Your task to perform on an android device: Go to Yahoo.com Image 0: 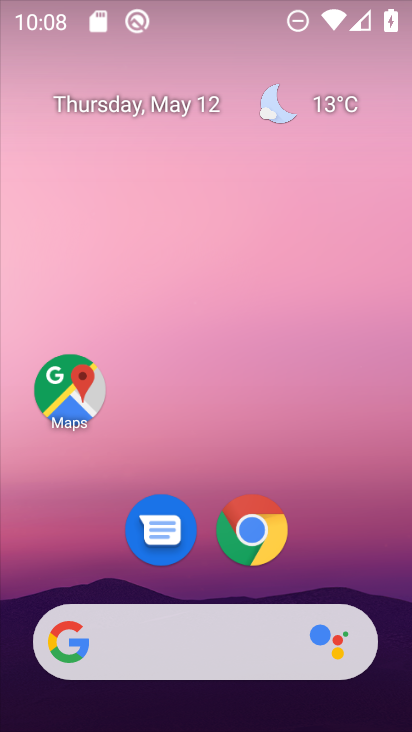
Step 0: click (279, 541)
Your task to perform on an android device: Go to Yahoo.com Image 1: 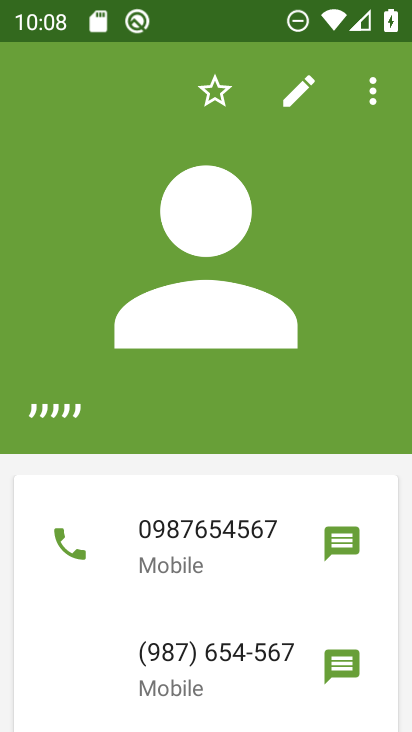
Step 1: press home button
Your task to perform on an android device: Go to Yahoo.com Image 2: 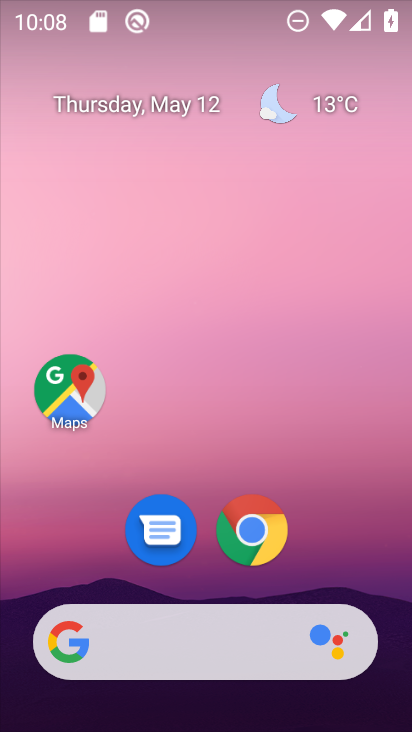
Step 2: click (220, 547)
Your task to perform on an android device: Go to Yahoo.com Image 3: 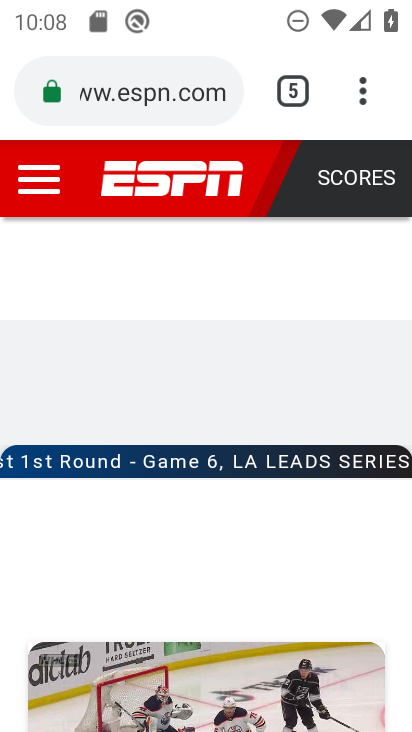
Step 3: click (287, 94)
Your task to perform on an android device: Go to Yahoo.com Image 4: 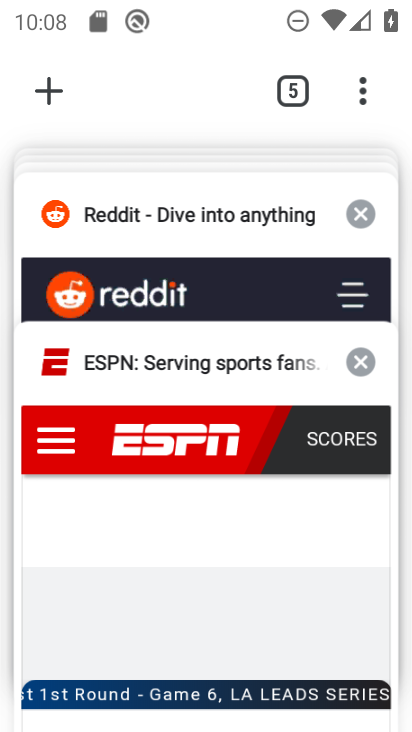
Step 4: click (45, 75)
Your task to perform on an android device: Go to Yahoo.com Image 5: 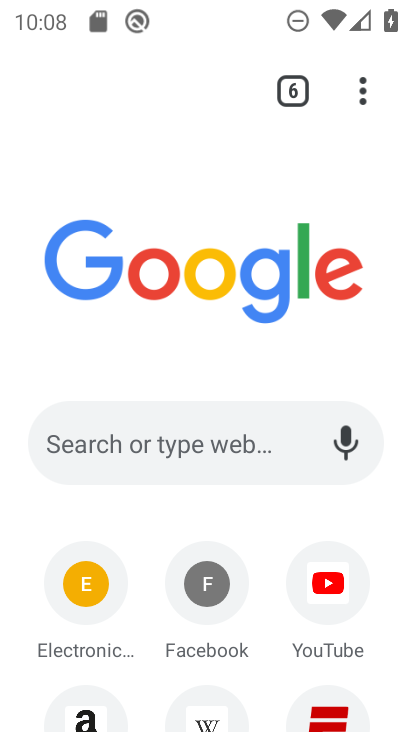
Step 5: drag from (251, 637) to (327, 195)
Your task to perform on an android device: Go to Yahoo.com Image 6: 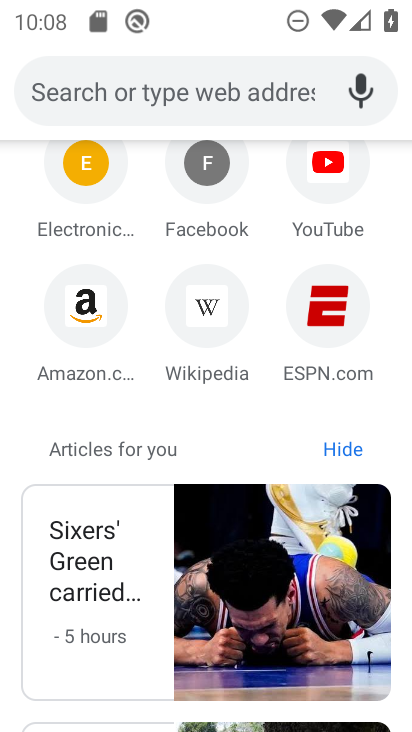
Step 6: drag from (276, 224) to (178, 567)
Your task to perform on an android device: Go to Yahoo.com Image 7: 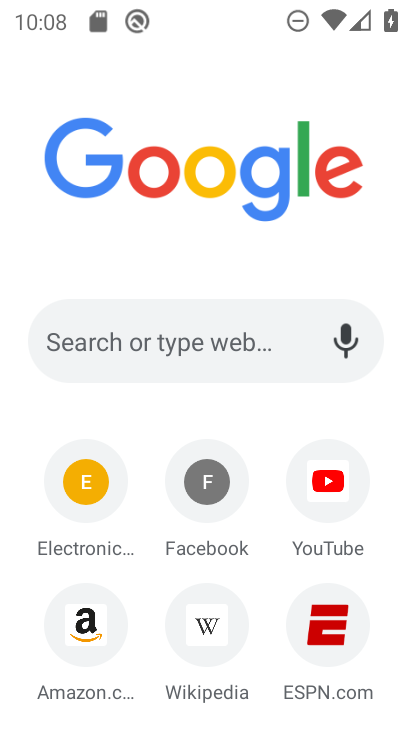
Step 7: click (193, 344)
Your task to perform on an android device: Go to Yahoo.com Image 8: 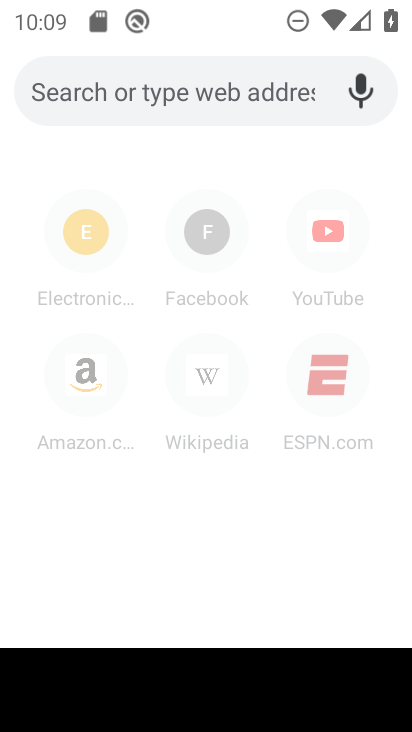
Step 8: type "yahoo.com"
Your task to perform on an android device: Go to Yahoo.com Image 9: 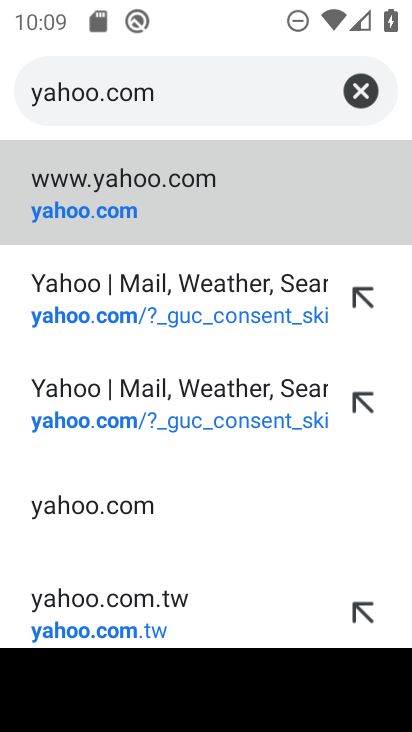
Step 9: click (159, 217)
Your task to perform on an android device: Go to Yahoo.com Image 10: 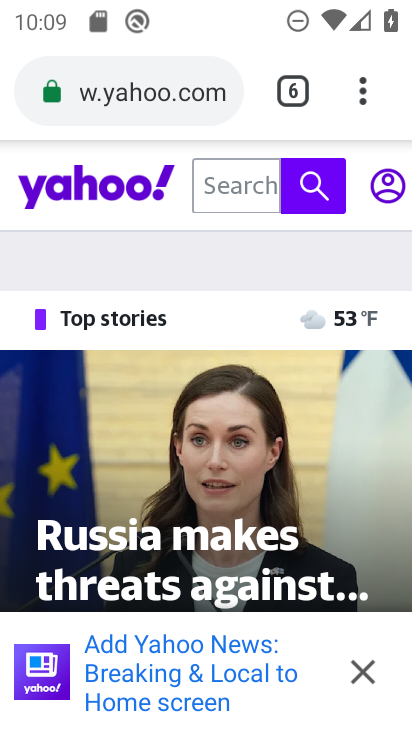
Step 10: task complete